Your task to perform on an android device: Open Chrome and go to the settings page Image 0: 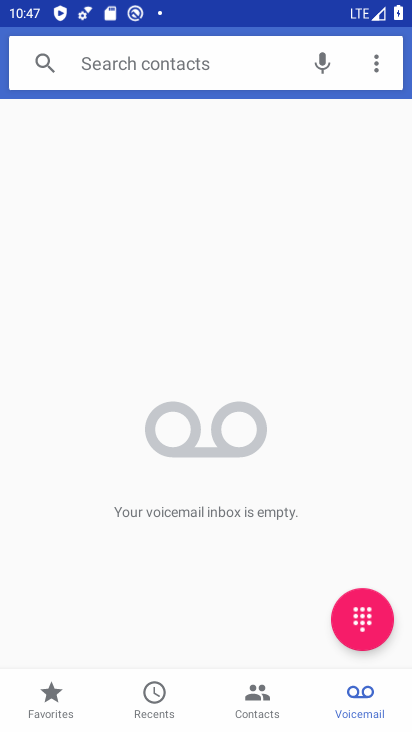
Step 0: press home button
Your task to perform on an android device: Open Chrome and go to the settings page Image 1: 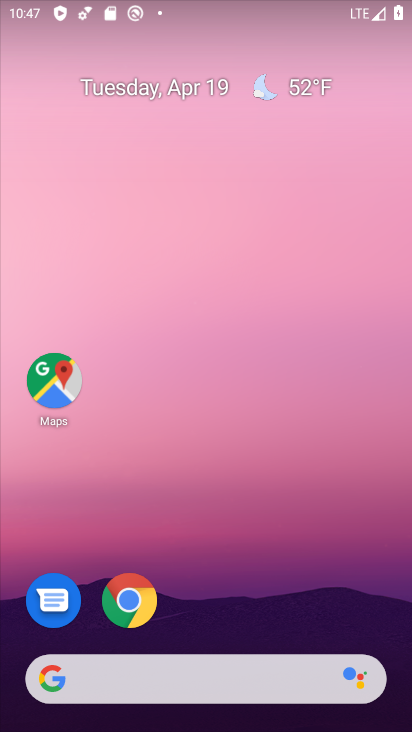
Step 1: drag from (320, 614) to (123, 58)
Your task to perform on an android device: Open Chrome and go to the settings page Image 2: 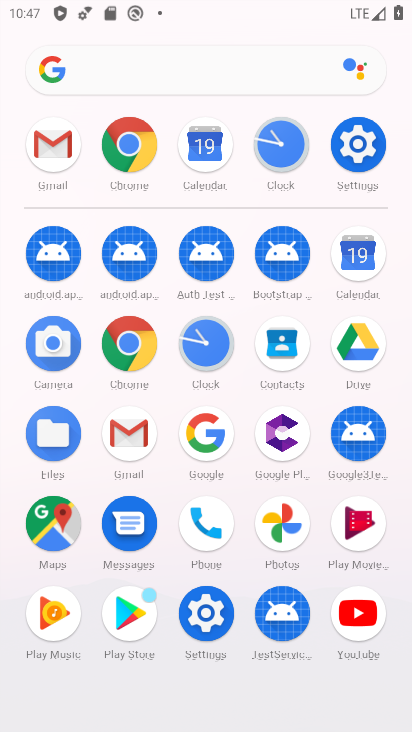
Step 2: click (124, 348)
Your task to perform on an android device: Open Chrome and go to the settings page Image 3: 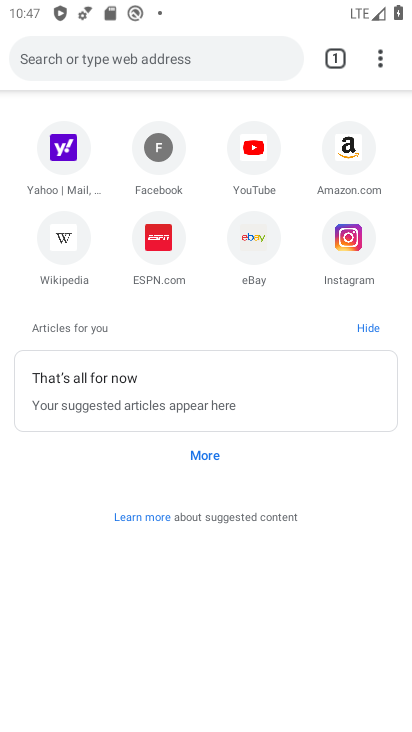
Step 3: click (380, 59)
Your task to perform on an android device: Open Chrome and go to the settings page Image 4: 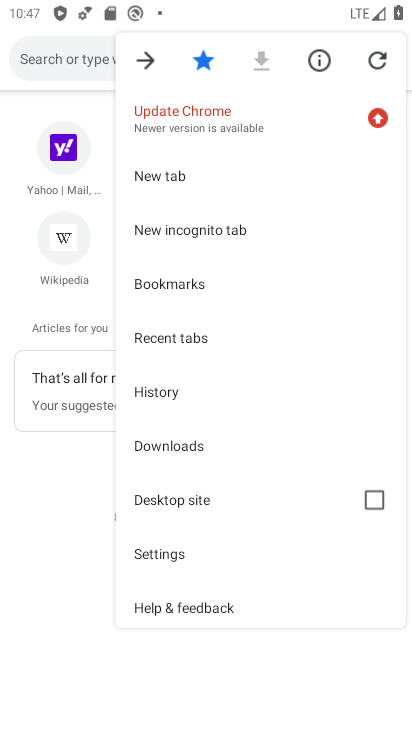
Step 4: click (212, 555)
Your task to perform on an android device: Open Chrome and go to the settings page Image 5: 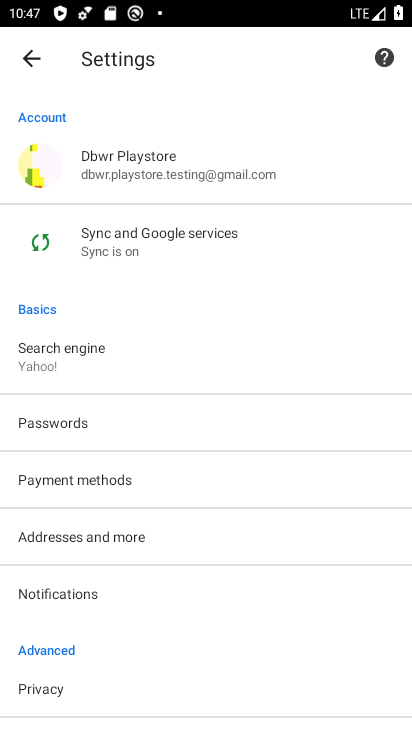
Step 5: task complete